Your task to perform on an android device: Is it going to rain tomorrow? Image 0: 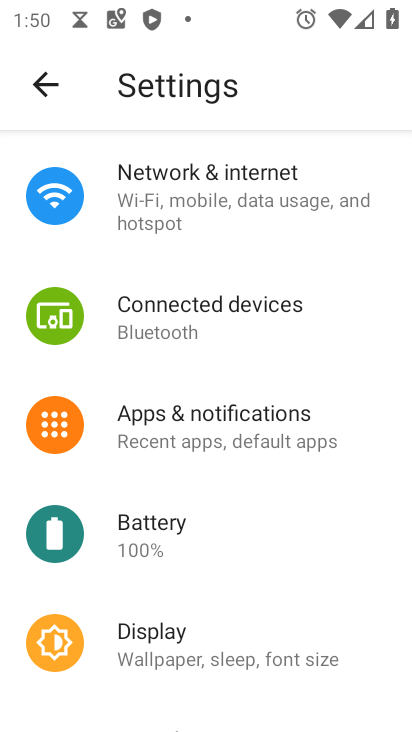
Step 0: press home button
Your task to perform on an android device: Is it going to rain tomorrow? Image 1: 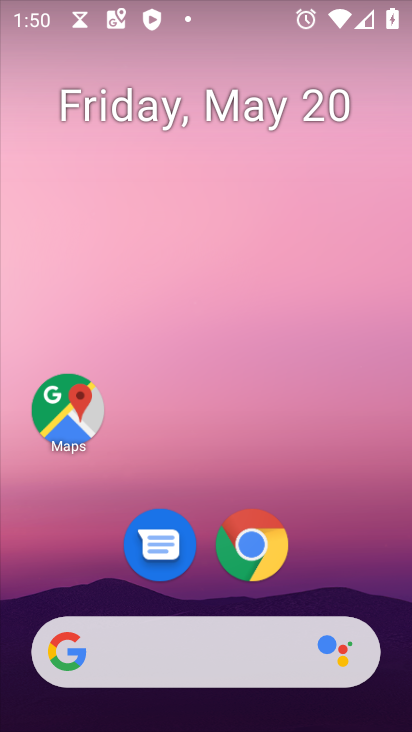
Step 1: click (169, 634)
Your task to perform on an android device: Is it going to rain tomorrow? Image 2: 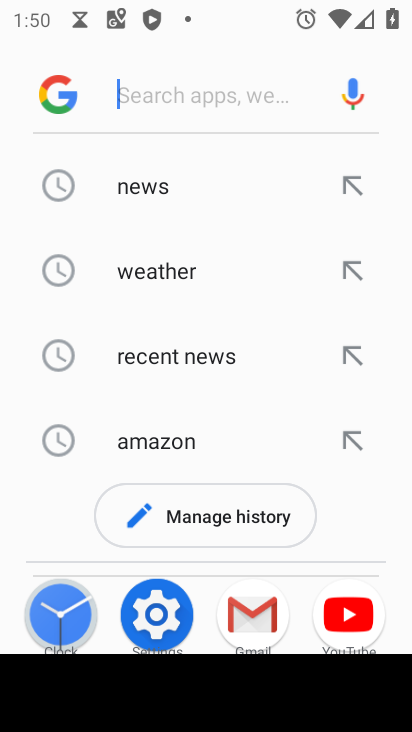
Step 2: click (177, 268)
Your task to perform on an android device: Is it going to rain tomorrow? Image 3: 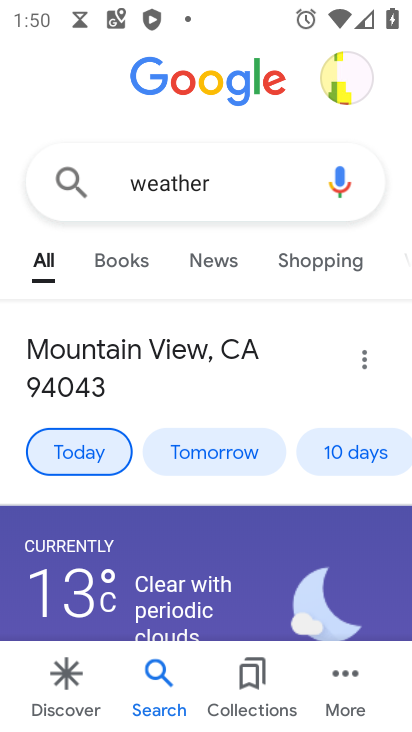
Step 3: click (230, 455)
Your task to perform on an android device: Is it going to rain tomorrow? Image 4: 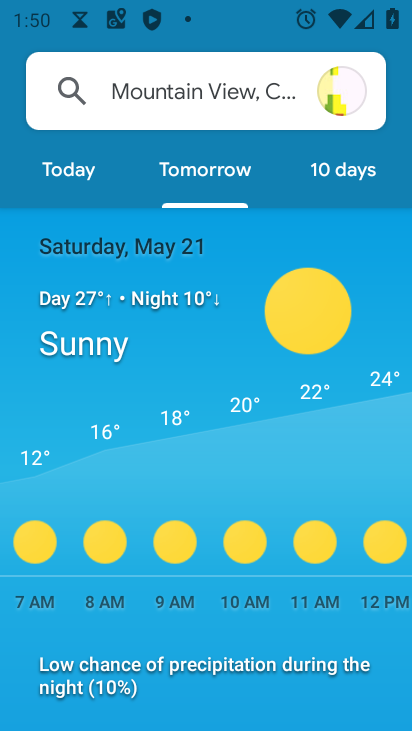
Step 4: task complete